Your task to perform on an android device: set the timer Image 0: 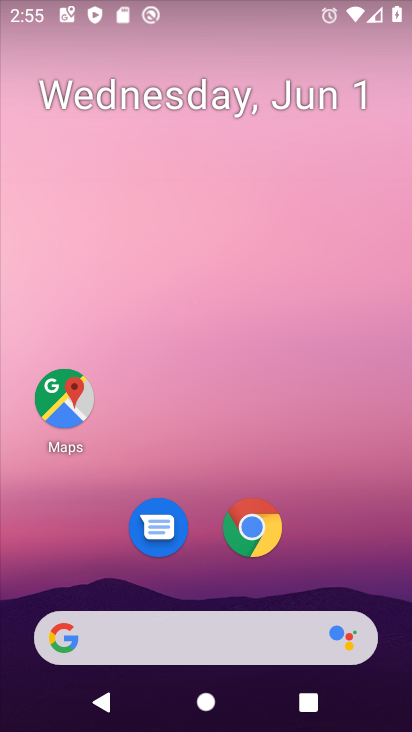
Step 0: drag from (339, 559) to (409, 177)
Your task to perform on an android device: set the timer Image 1: 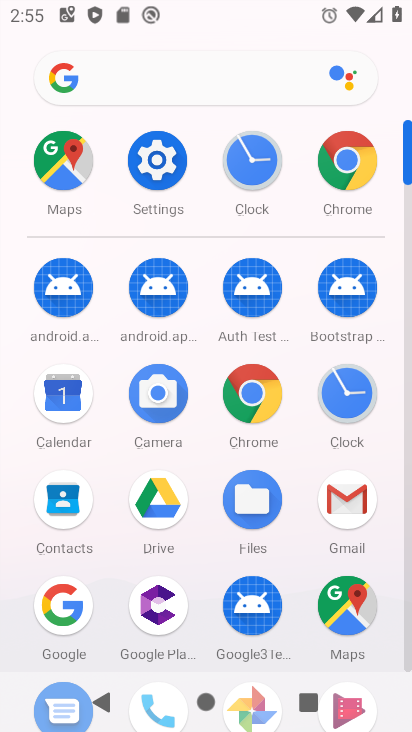
Step 1: click (254, 161)
Your task to perform on an android device: set the timer Image 2: 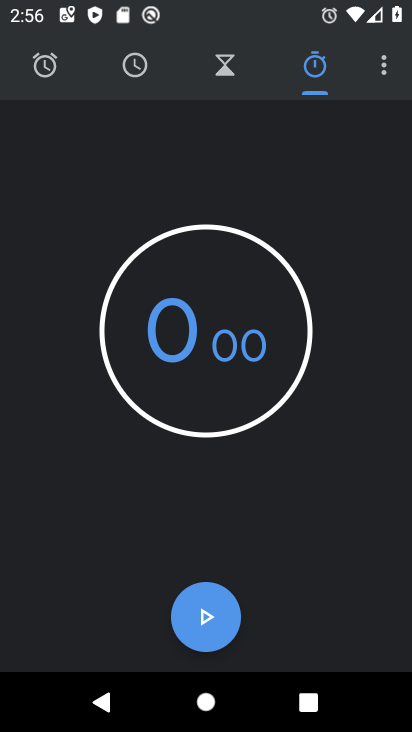
Step 2: click (225, 68)
Your task to perform on an android device: set the timer Image 3: 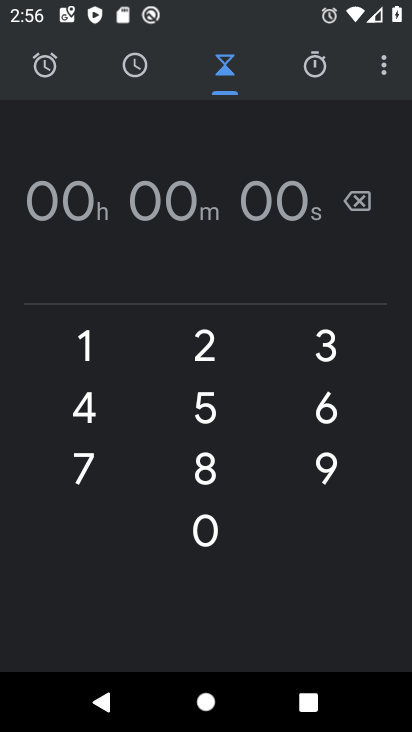
Step 3: type "1357"
Your task to perform on an android device: set the timer Image 4: 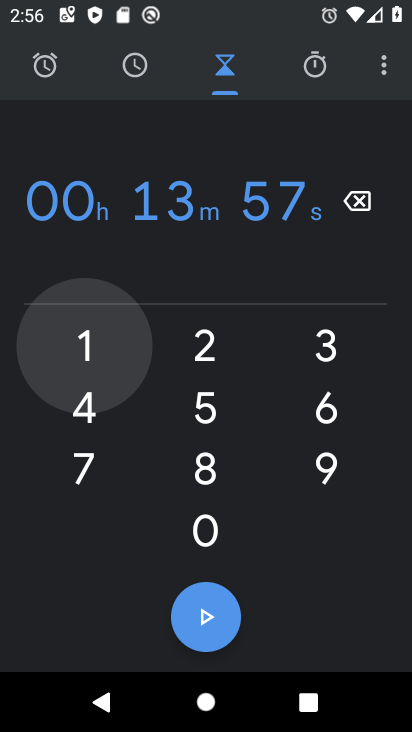
Step 4: click (205, 618)
Your task to perform on an android device: set the timer Image 5: 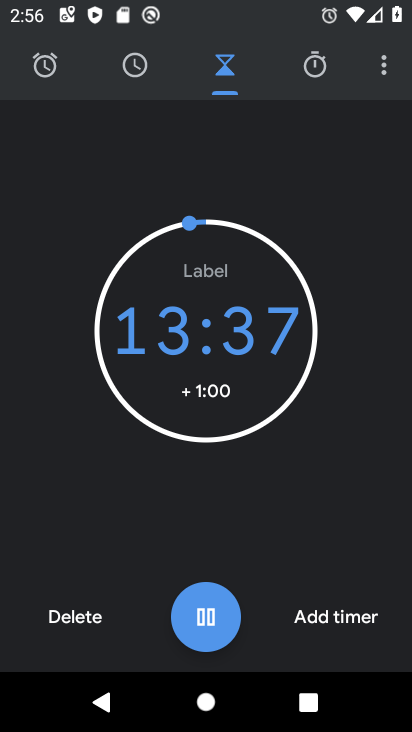
Step 5: click (207, 615)
Your task to perform on an android device: set the timer Image 6: 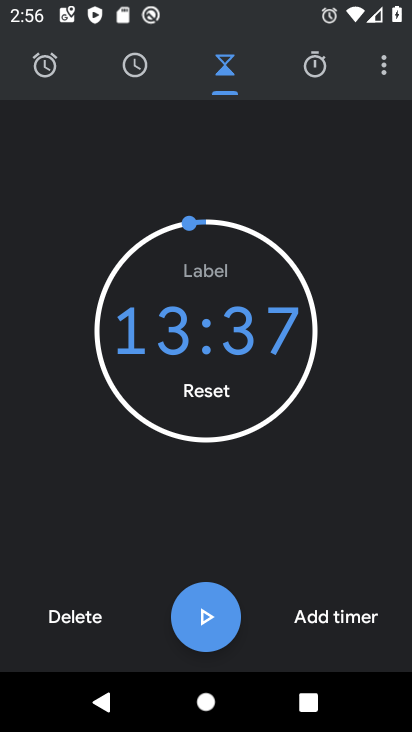
Step 6: task complete